Your task to perform on an android device: change timer sound Image 0: 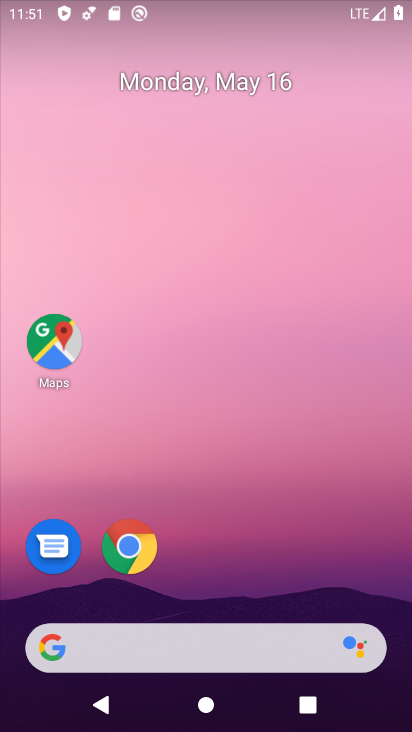
Step 0: drag from (395, 618) to (353, 40)
Your task to perform on an android device: change timer sound Image 1: 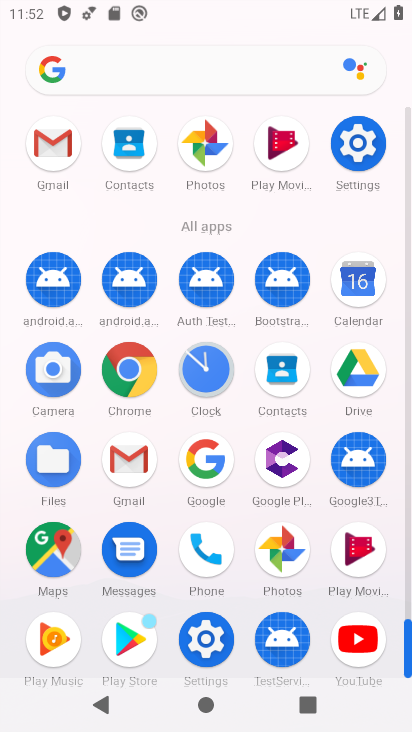
Step 1: click (204, 369)
Your task to perform on an android device: change timer sound Image 2: 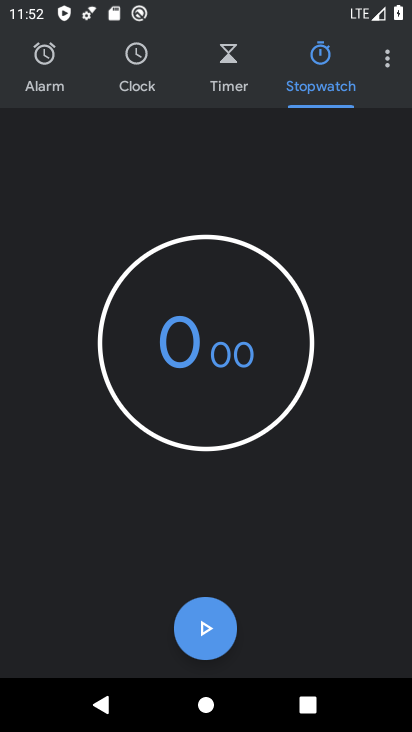
Step 2: click (389, 61)
Your task to perform on an android device: change timer sound Image 3: 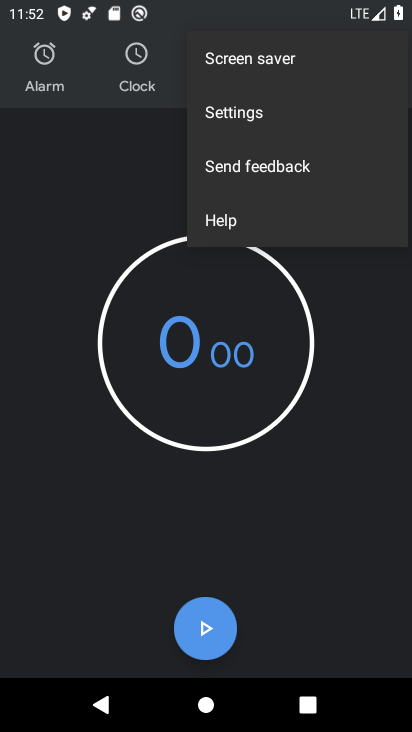
Step 3: click (222, 112)
Your task to perform on an android device: change timer sound Image 4: 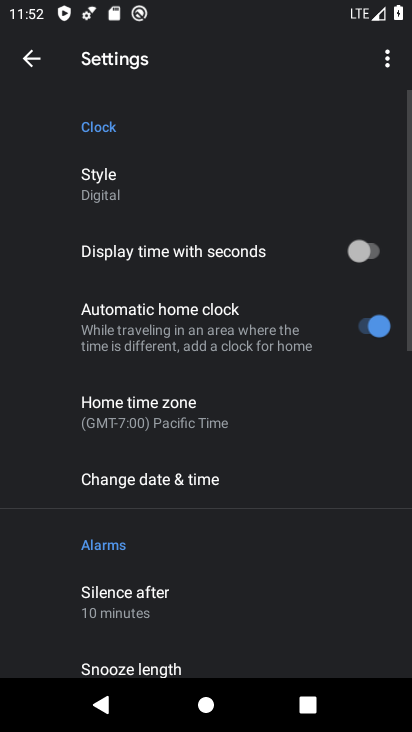
Step 4: drag from (249, 590) to (323, 80)
Your task to perform on an android device: change timer sound Image 5: 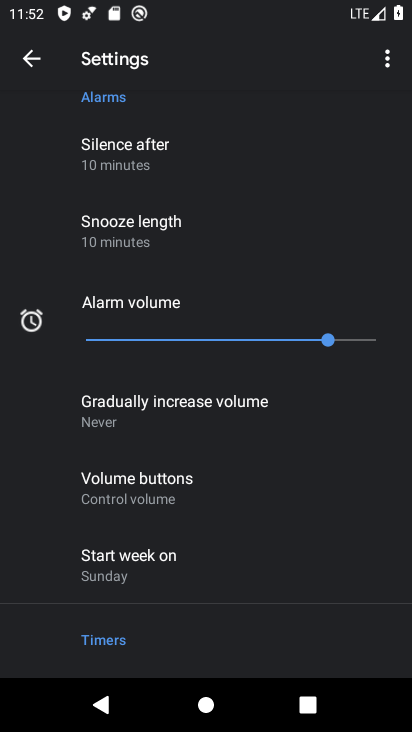
Step 5: drag from (239, 523) to (246, 73)
Your task to perform on an android device: change timer sound Image 6: 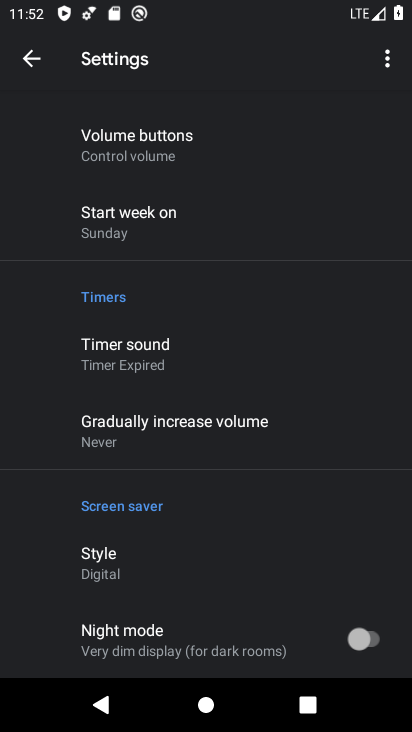
Step 6: click (116, 363)
Your task to perform on an android device: change timer sound Image 7: 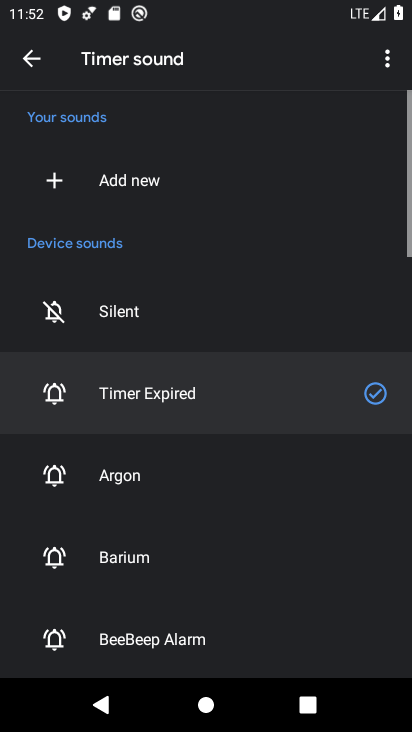
Step 7: drag from (186, 639) to (271, 124)
Your task to perform on an android device: change timer sound Image 8: 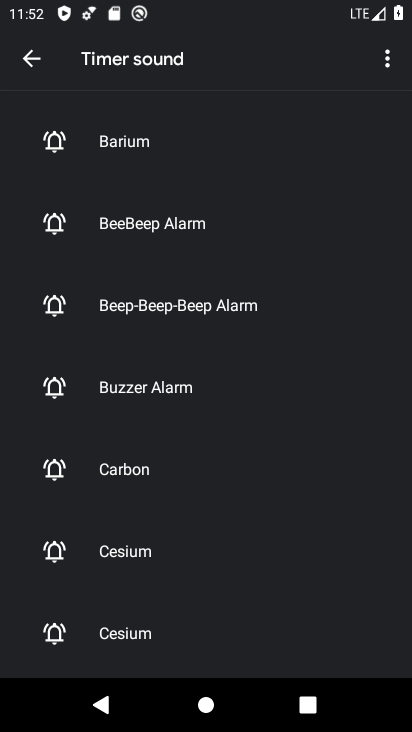
Step 8: click (174, 232)
Your task to perform on an android device: change timer sound Image 9: 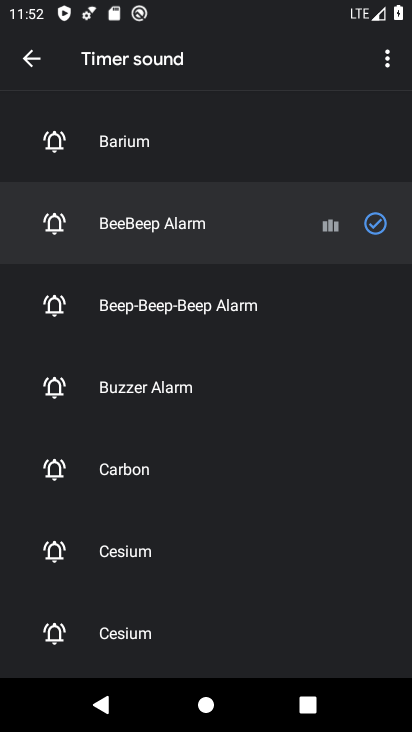
Step 9: task complete